Your task to perform on an android device: Go to internet settings Image 0: 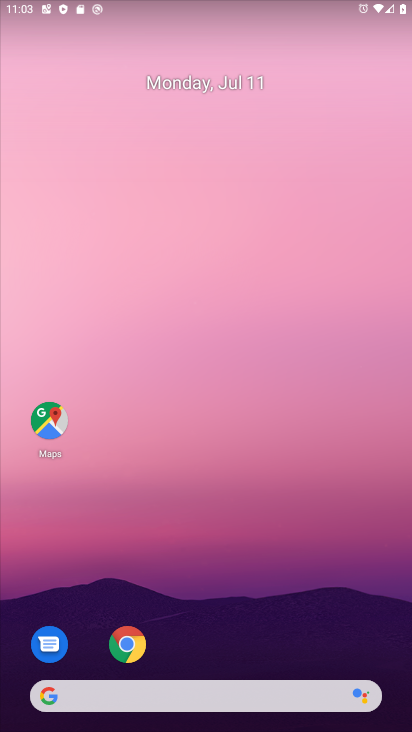
Step 0: drag from (219, 654) to (207, 106)
Your task to perform on an android device: Go to internet settings Image 1: 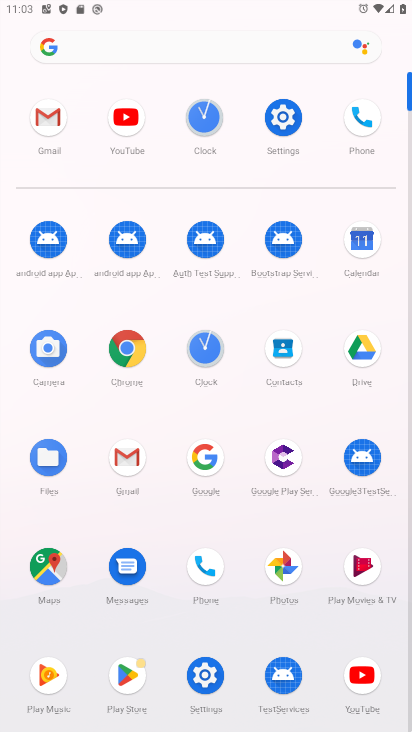
Step 1: click (280, 109)
Your task to perform on an android device: Go to internet settings Image 2: 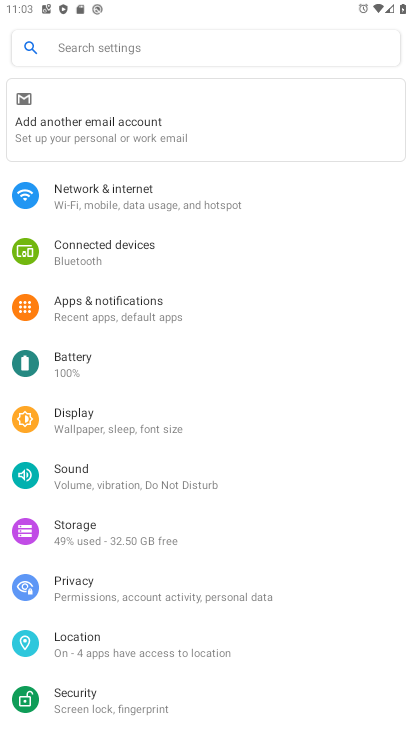
Step 2: click (164, 184)
Your task to perform on an android device: Go to internet settings Image 3: 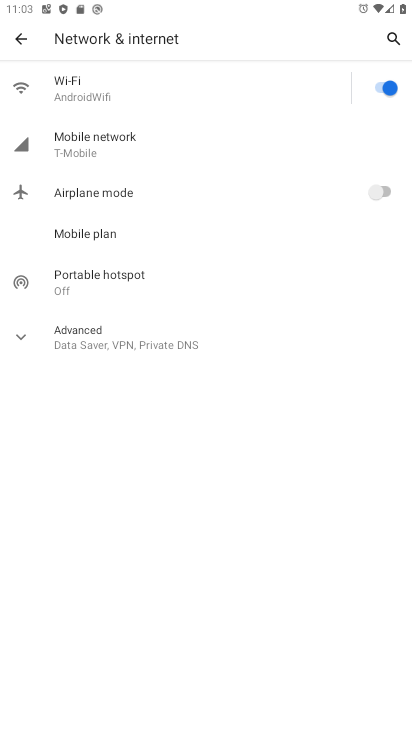
Step 3: click (24, 332)
Your task to perform on an android device: Go to internet settings Image 4: 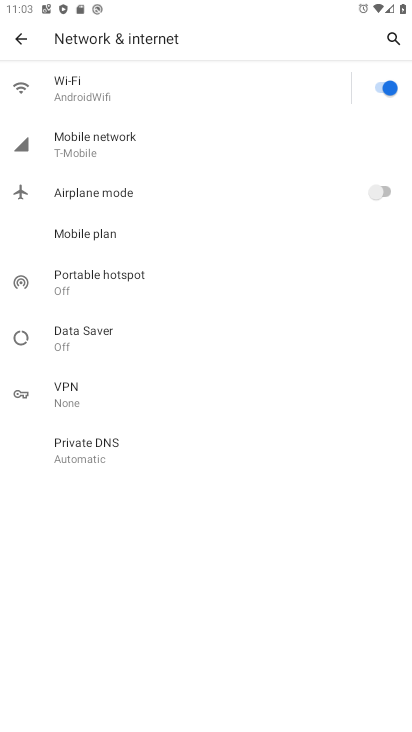
Step 4: task complete